Your task to perform on an android device: What's the weather? Image 0: 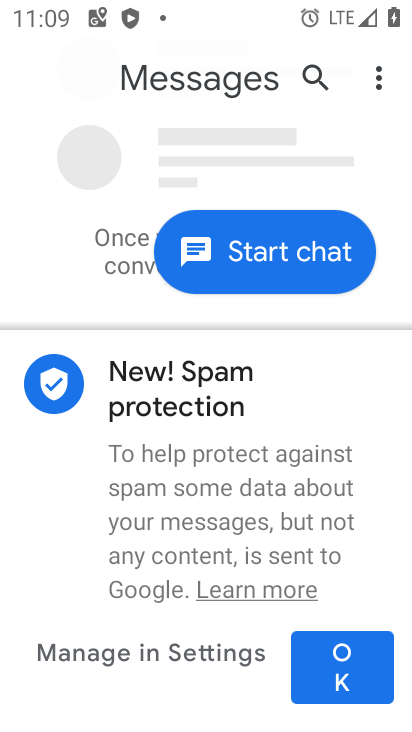
Step 0: press home button
Your task to perform on an android device: What's the weather? Image 1: 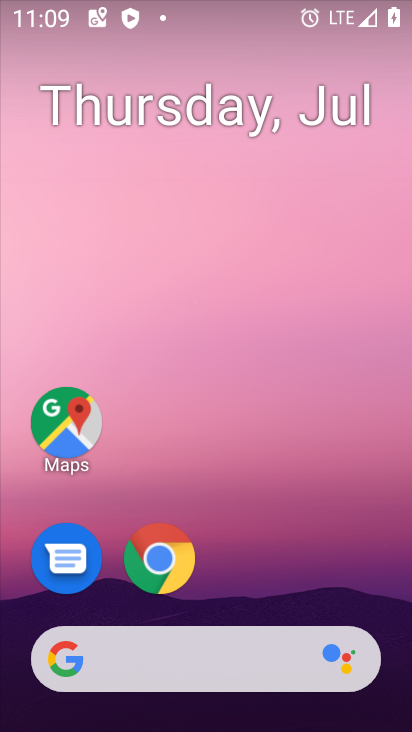
Step 1: click (234, 666)
Your task to perform on an android device: What's the weather? Image 2: 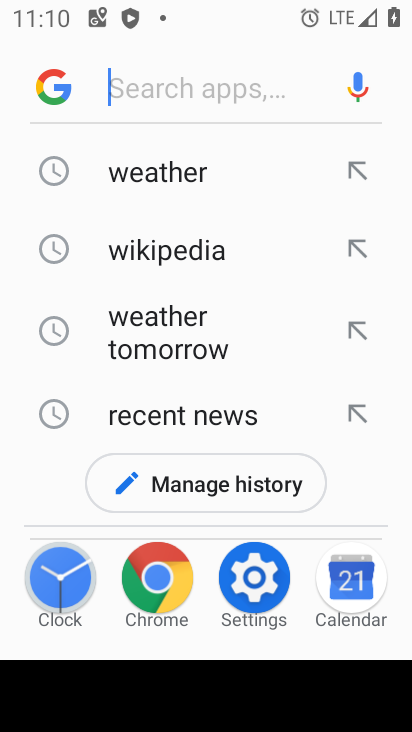
Step 2: click (194, 182)
Your task to perform on an android device: What's the weather? Image 3: 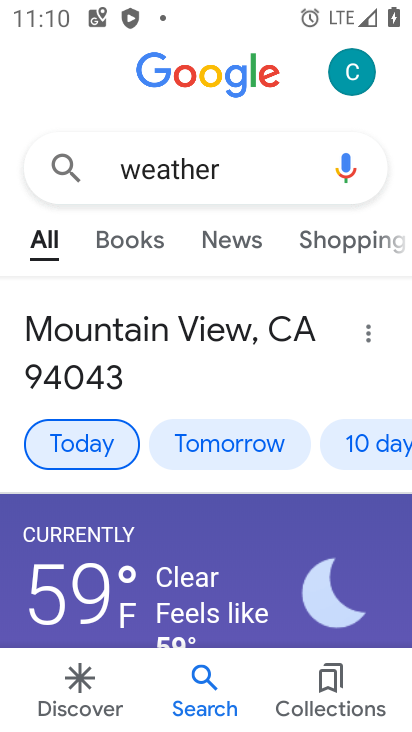
Step 3: task complete